Your task to perform on an android device: Search for vegetarian restaurants on Maps Image 0: 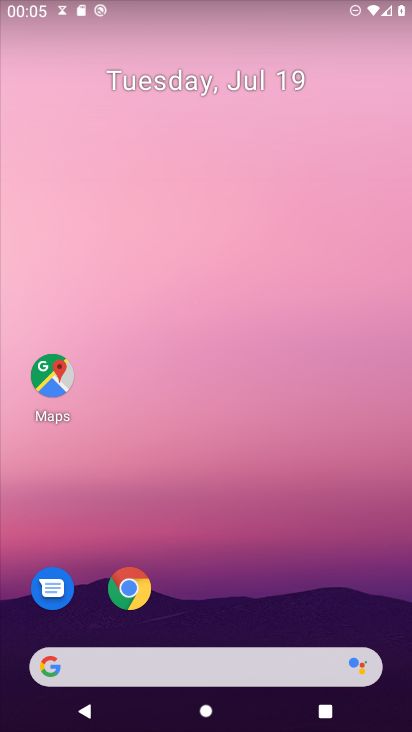
Step 0: press home button
Your task to perform on an android device: Search for vegetarian restaurants on Maps Image 1: 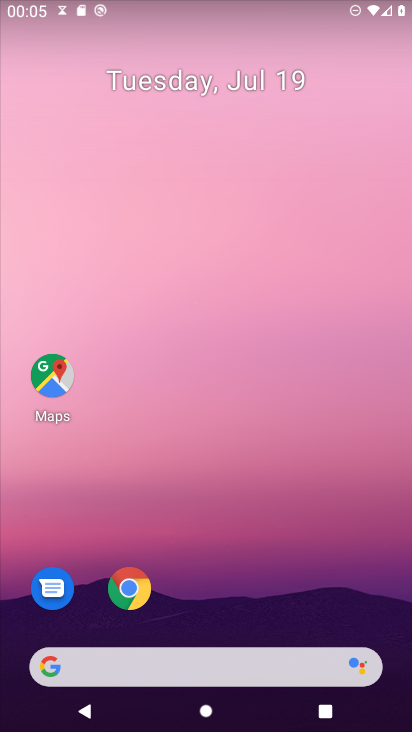
Step 1: click (53, 383)
Your task to perform on an android device: Search for vegetarian restaurants on Maps Image 2: 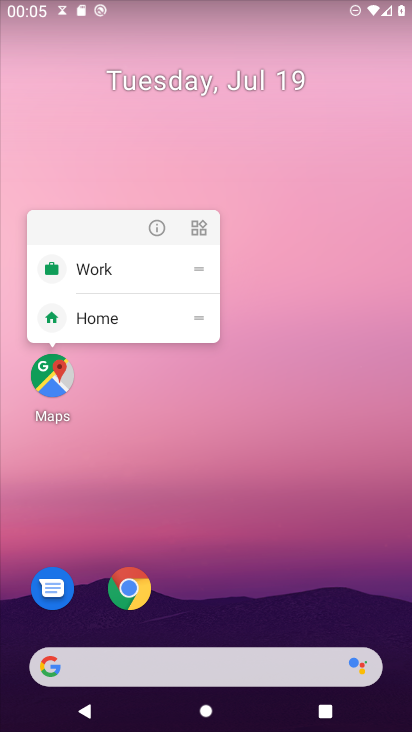
Step 2: click (53, 383)
Your task to perform on an android device: Search for vegetarian restaurants on Maps Image 3: 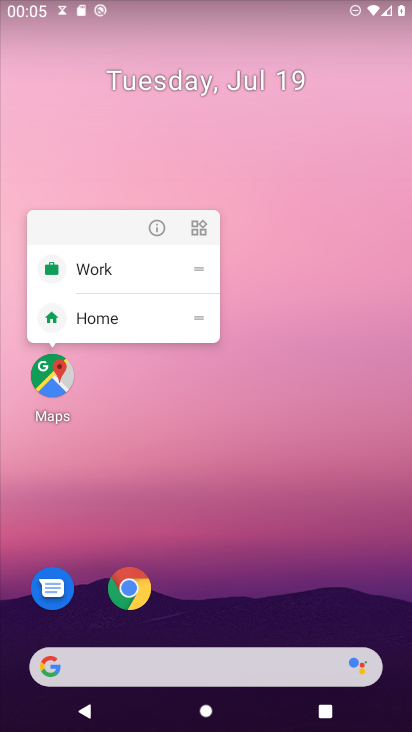
Step 3: click (53, 383)
Your task to perform on an android device: Search for vegetarian restaurants on Maps Image 4: 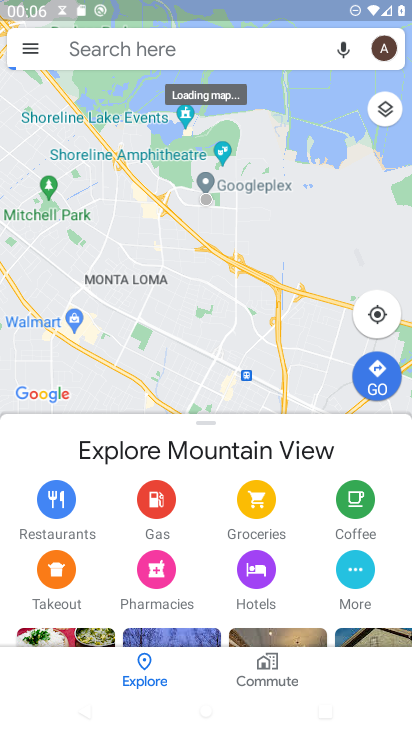
Step 4: type "vegetarian restaurants"
Your task to perform on an android device: Search for vegetarian restaurants on Maps Image 5: 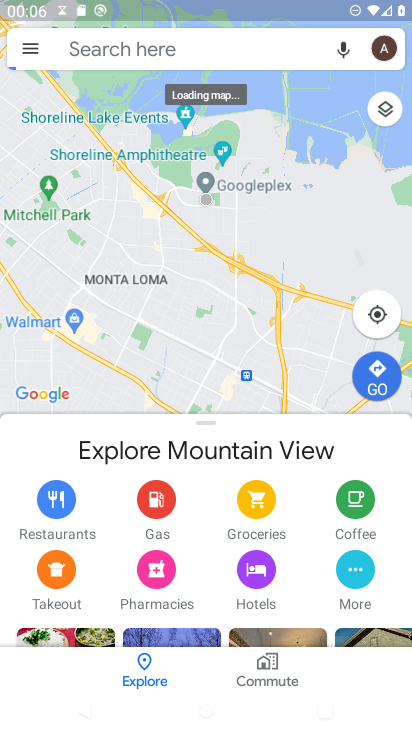
Step 5: click (138, 45)
Your task to perform on an android device: Search for vegetarian restaurants on Maps Image 6: 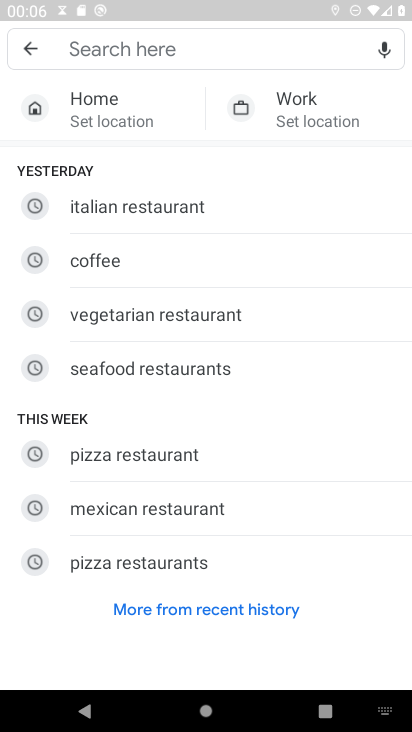
Step 6: click (184, 313)
Your task to perform on an android device: Search for vegetarian restaurants on Maps Image 7: 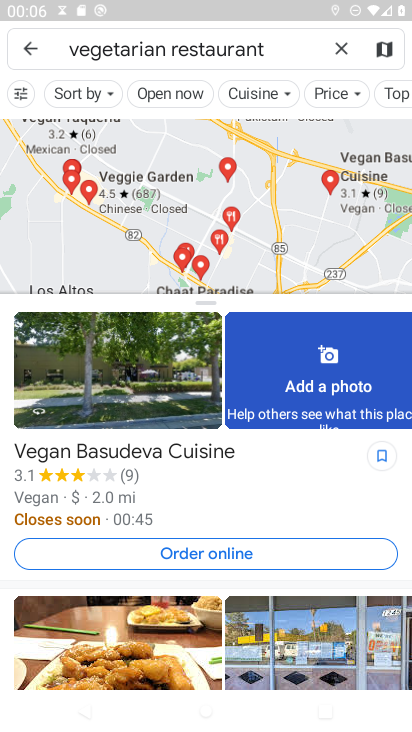
Step 7: task complete